Your task to perform on an android device: turn on notifications settings in the gmail app Image 0: 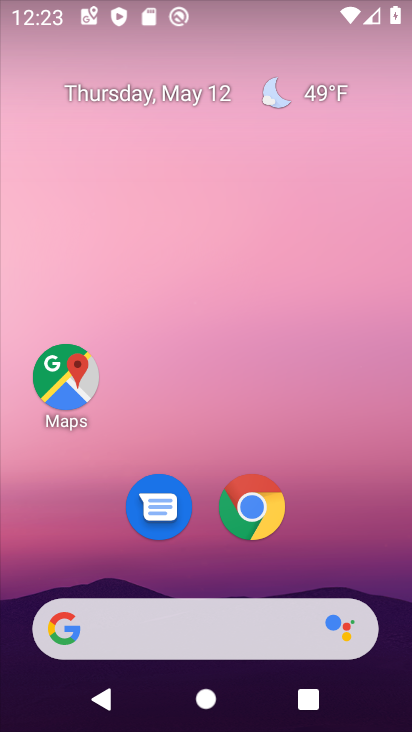
Step 0: drag from (291, 574) to (291, 21)
Your task to perform on an android device: turn on notifications settings in the gmail app Image 1: 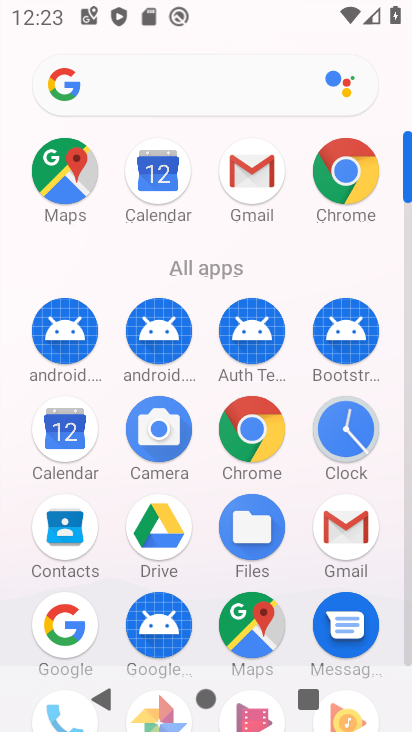
Step 1: click (342, 524)
Your task to perform on an android device: turn on notifications settings in the gmail app Image 2: 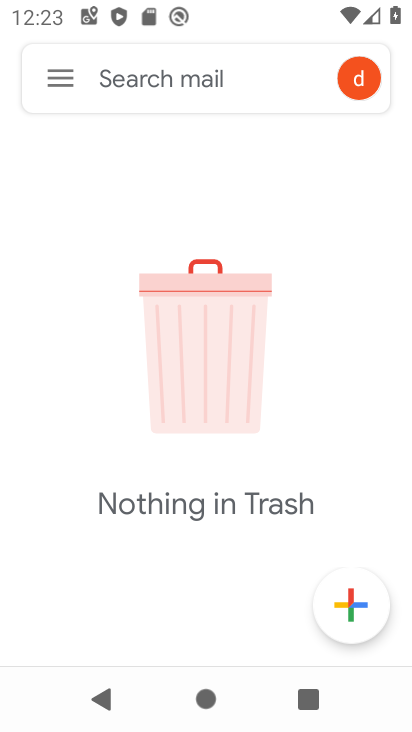
Step 2: click (59, 77)
Your task to perform on an android device: turn on notifications settings in the gmail app Image 3: 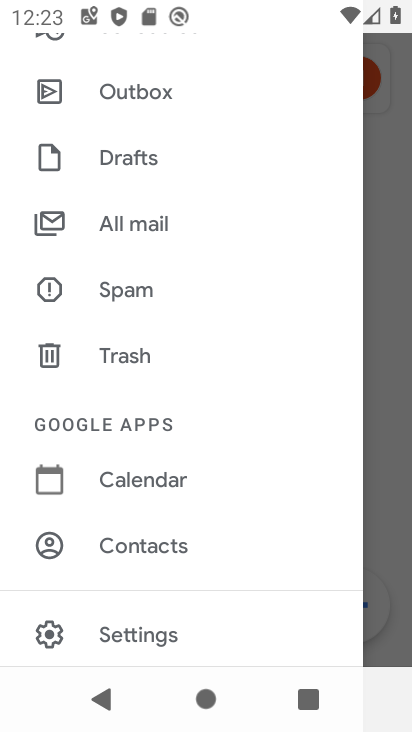
Step 3: click (179, 621)
Your task to perform on an android device: turn on notifications settings in the gmail app Image 4: 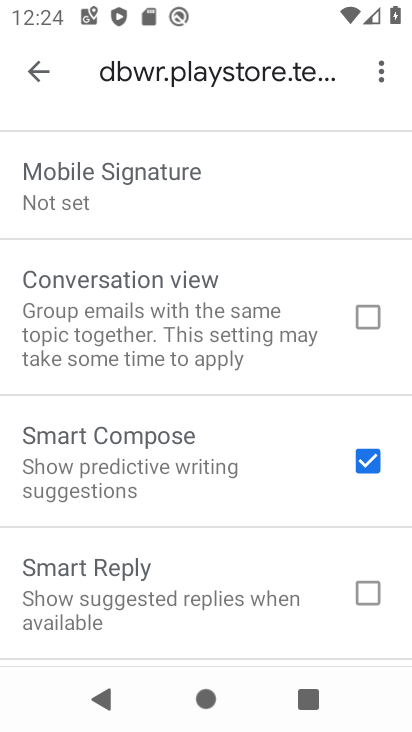
Step 4: drag from (219, 301) to (220, 514)
Your task to perform on an android device: turn on notifications settings in the gmail app Image 5: 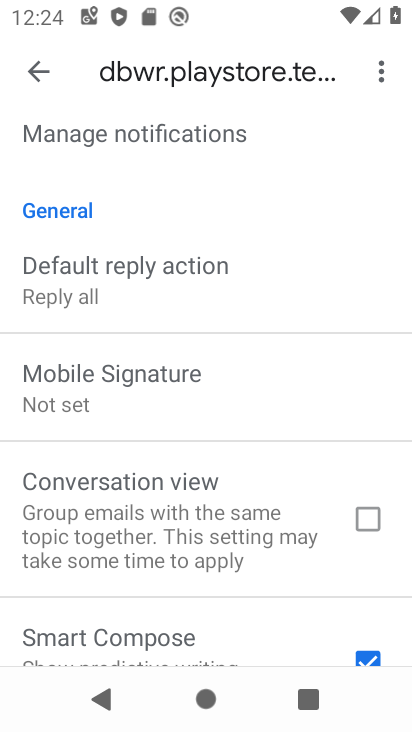
Step 5: drag from (194, 233) to (196, 421)
Your task to perform on an android device: turn on notifications settings in the gmail app Image 6: 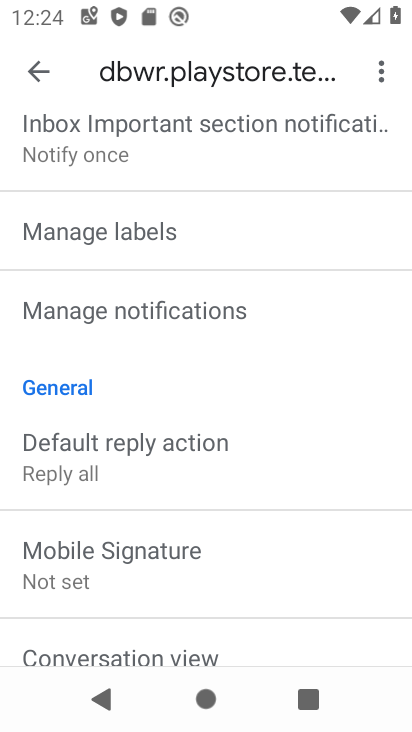
Step 6: drag from (230, 266) to (228, 373)
Your task to perform on an android device: turn on notifications settings in the gmail app Image 7: 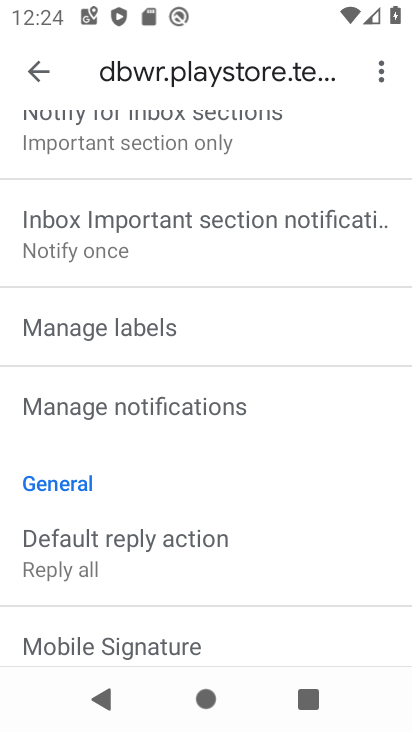
Step 7: click (163, 401)
Your task to perform on an android device: turn on notifications settings in the gmail app Image 8: 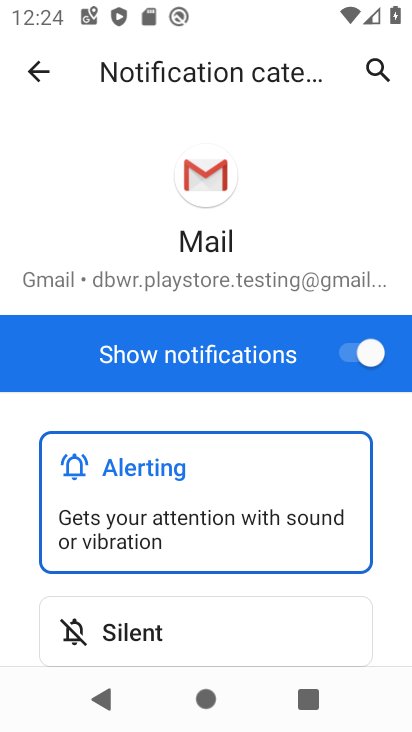
Step 8: task complete